Your task to perform on an android device: open a bookmark in the chrome app Image 0: 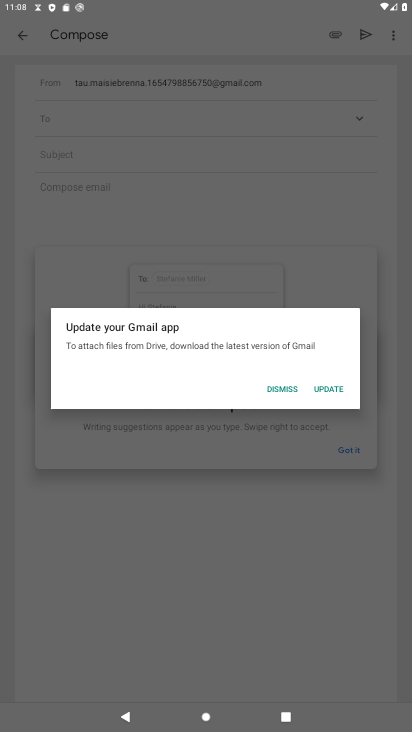
Step 0: press home button
Your task to perform on an android device: open a bookmark in the chrome app Image 1: 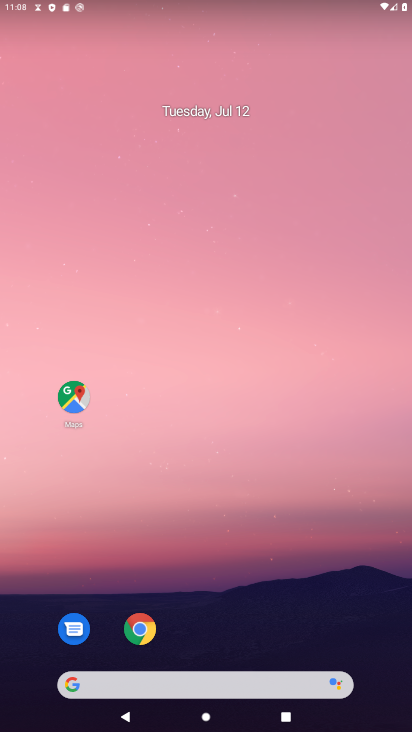
Step 1: drag from (350, 589) to (379, 149)
Your task to perform on an android device: open a bookmark in the chrome app Image 2: 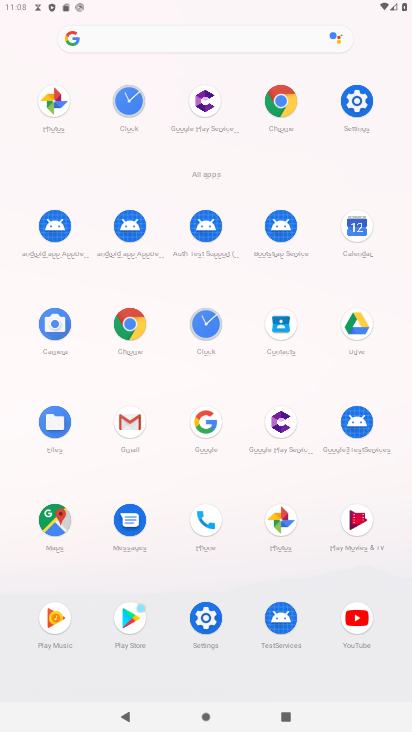
Step 2: click (287, 96)
Your task to perform on an android device: open a bookmark in the chrome app Image 3: 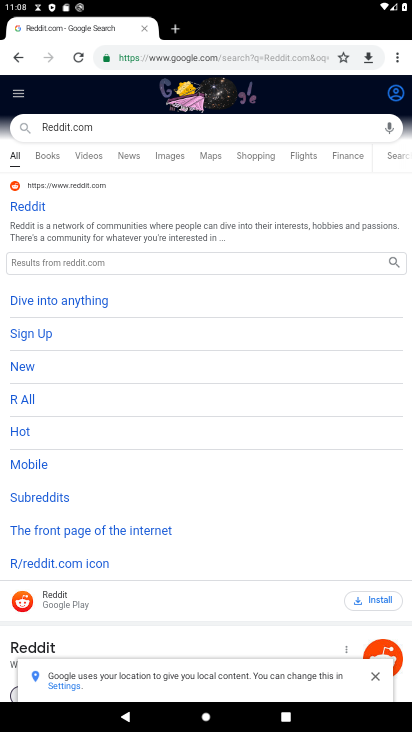
Step 3: drag from (400, 59) to (303, 114)
Your task to perform on an android device: open a bookmark in the chrome app Image 4: 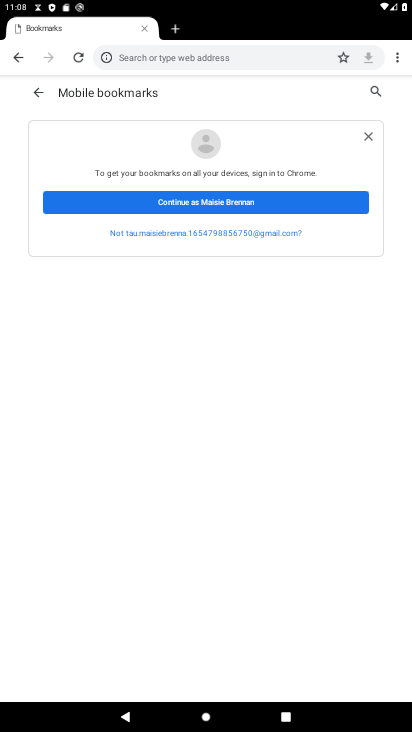
Step 4: click (202, 198)
Your task to perform on an android device: open a bookmark in the chrome app Image 5: 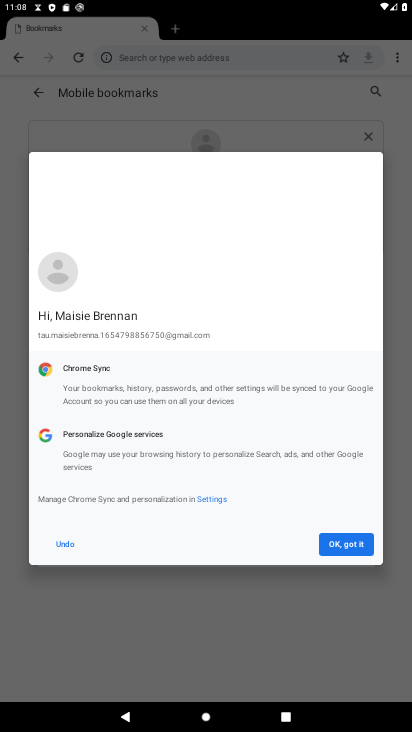
Step 5: click (332, 543)
Your task to perform on an android device: open a bookmark in the chrome app Image 6: 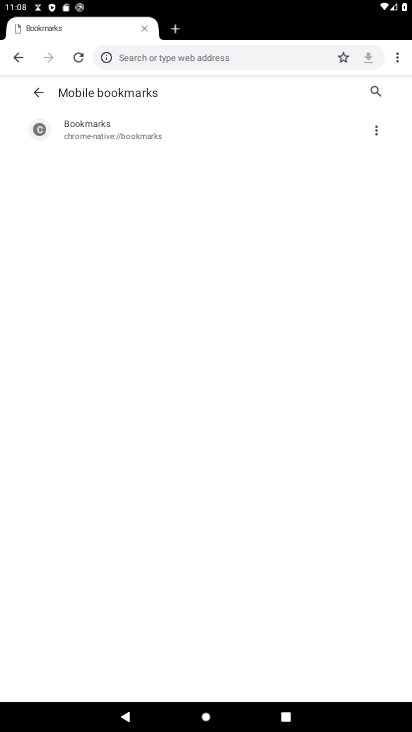
Step 6: task complete